Your task to perform on an android device: show emergency info Image 0: 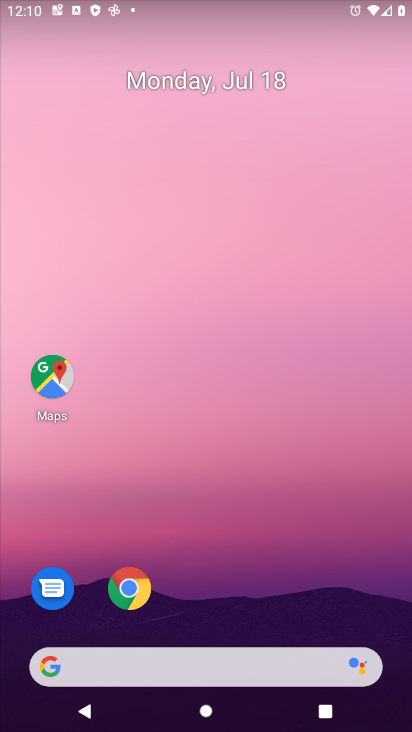
Step 0: drag from (141, 539) to (220, 138)
Your task to perform on an android device: show emergency info Image 1: 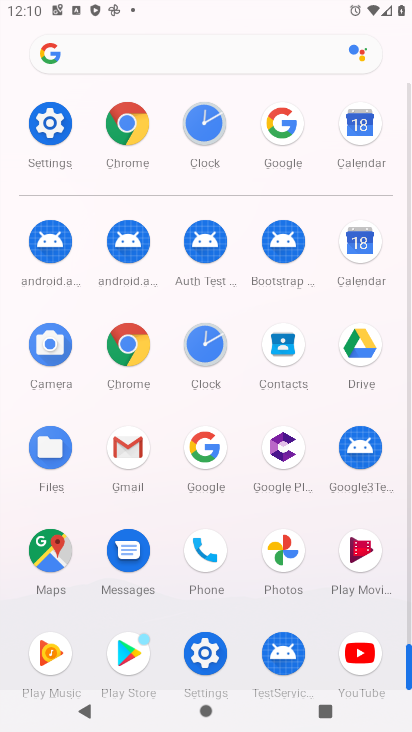
Step 1: click (48, 136)
Your task to perform on an android device: show emergency info Image 2: 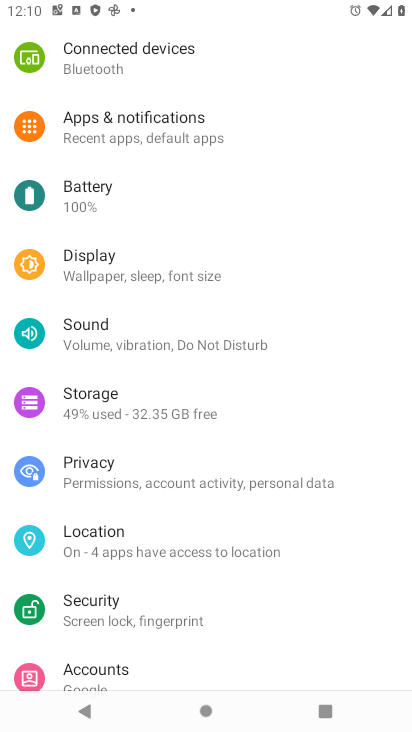
Step 2: drag from (97, 559) to (97, 129)
Your task to perform on an android device: show emergency info Image 3: 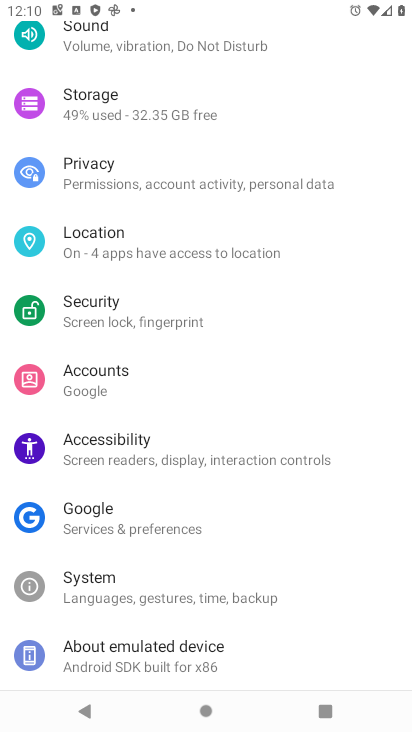
Step 3: click (130, 663)
Your task to perform on an android device: show emergency info Image 4: 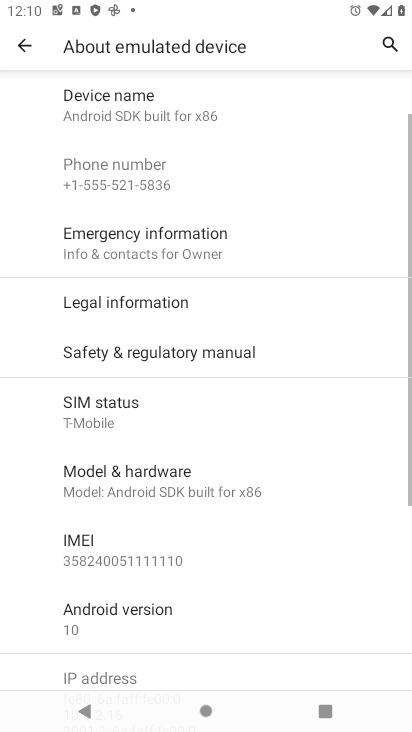
Step 4: click (162, 246)
Your task to perform on an android device: show emergency info Image 5: 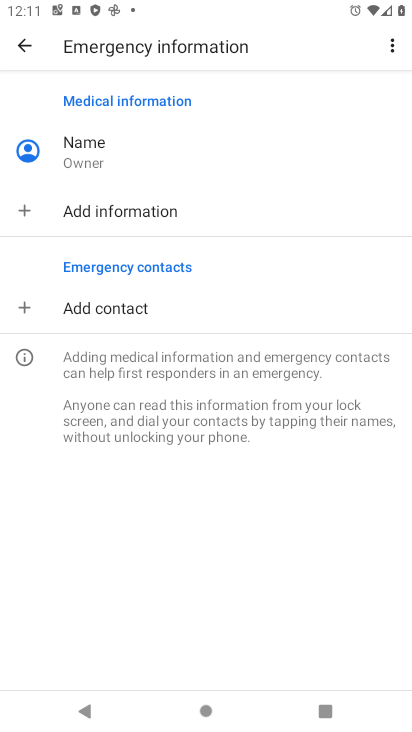
Step 5: task complete